Your task to perform on an android device: add a contact in the contacts app Image 0: 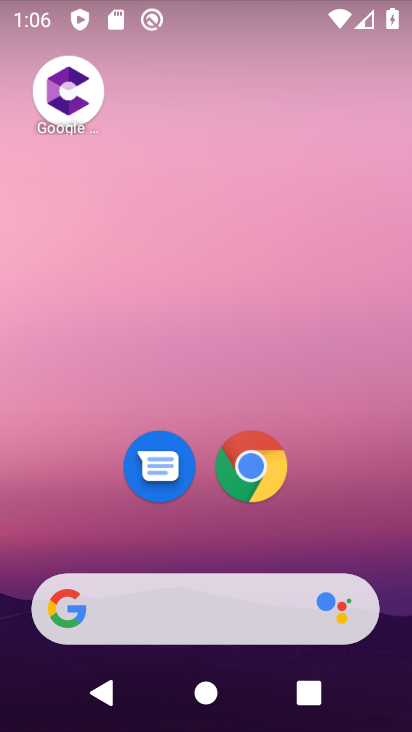
Step 0: drag from (374, 523) to (141, 5)
Your task to perform on an android device: add a contact in the contacts app Image 1: 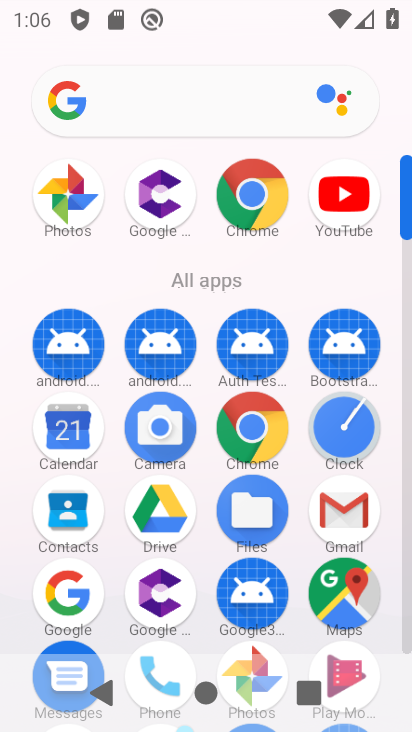
Step 1: drag from (17, 577) to (37, 281)
Your task to perform on an android device: add a contact in the contacts app Image 2: 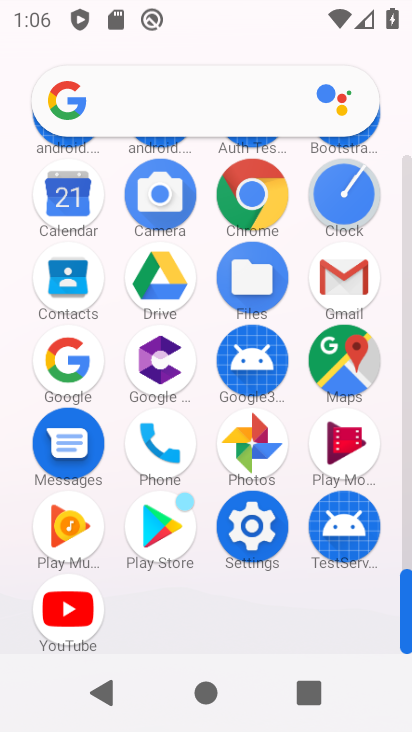
Step 2: click (61, 268)
Your task to perform on an android device: add a contact in the contacts app Image 3: 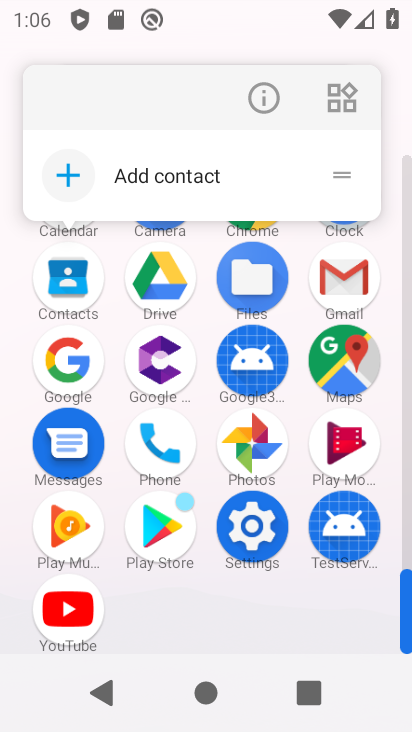
Step 3: click (61, 268)
Your task to perform on an android device: add a contact in the contacts app Image 4: 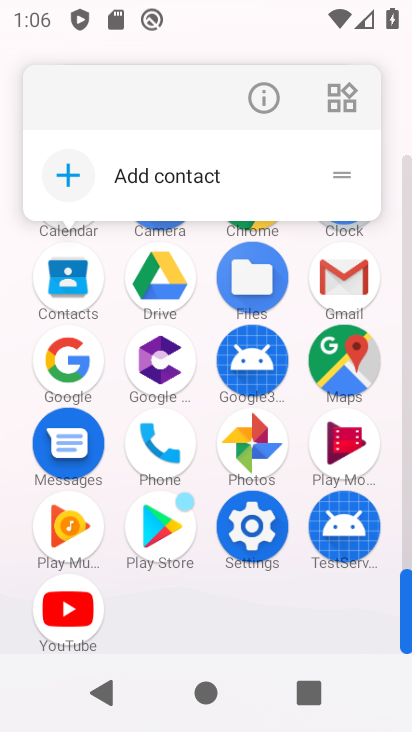
Step 4: click (61, 268)
Your task to perform on an android device: add a contact in the contacts app Image 5: 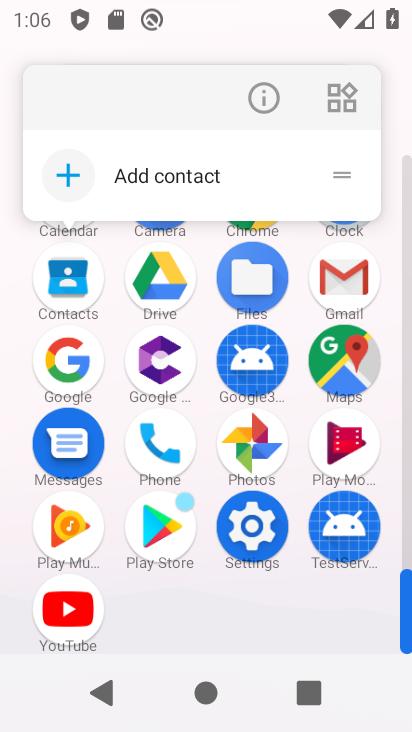
Step 5: click (61, 268)
Your task to perform on an android device: add a contact in the contacts app Image 6: 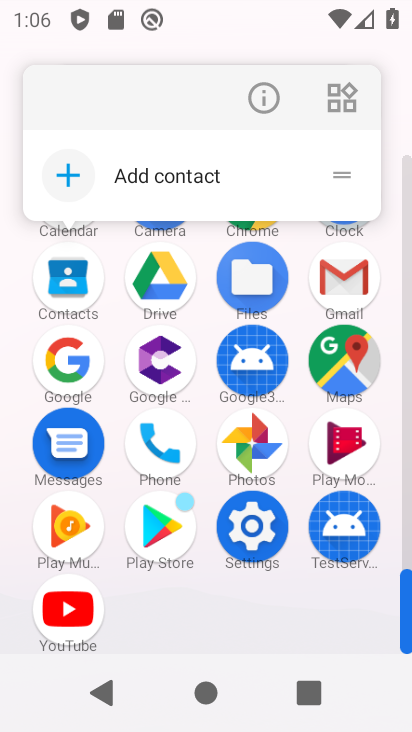
Step 6: task complete